Your task to perform on an android device: Search for sushi restaurants on Maps Image 0: 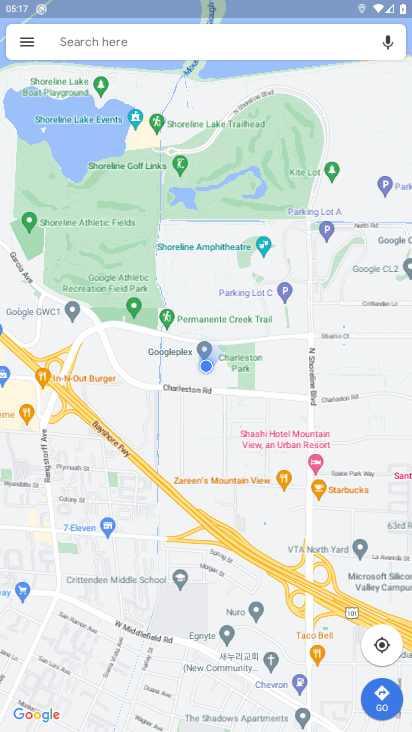
Step 0: click (121, 40)
Your task to perform on an android device: Search for sushi restaurants on Maps Image 1: 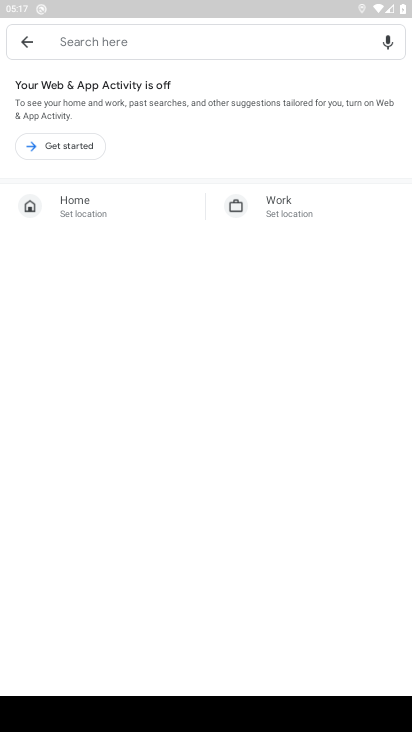
Step 1: click (113, 36)
Your task to perform on an android device: Search for sushi restaurants on Maps Image 2: 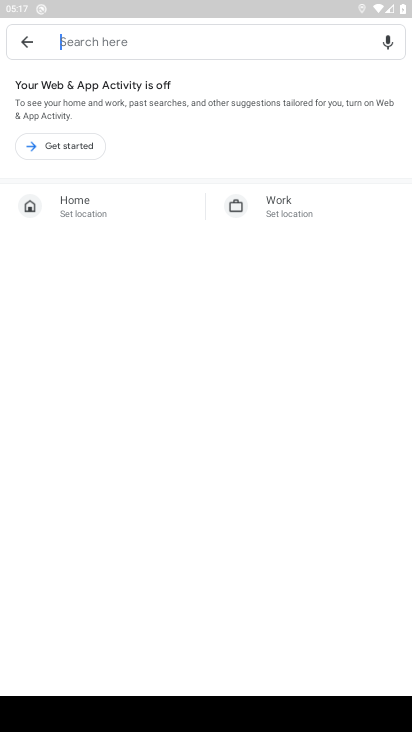
Step 2: type "sushi restaurants"
Your task to perform on an android device: Search for sushi restaurants on Maps Image 3: 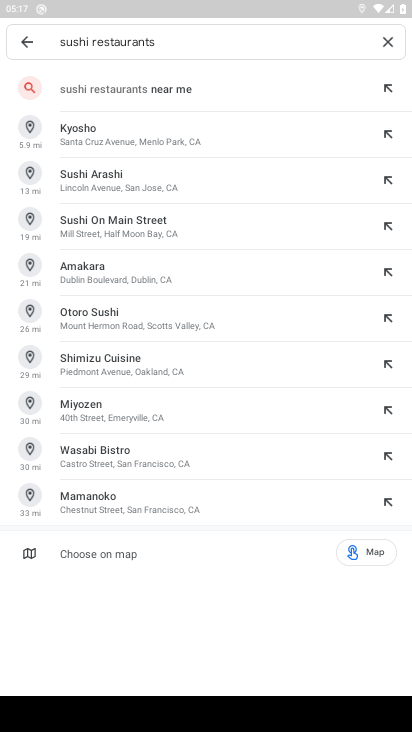
Step 3: click (154, 86)
Your task to perform on an android device: Search for sushi restaurants on Maps Image 4: 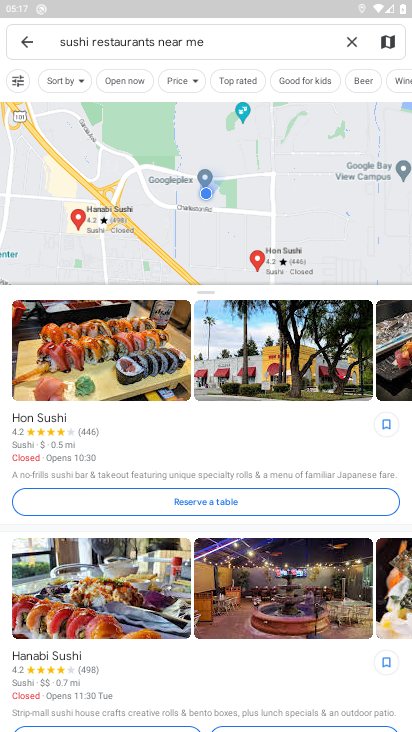
Step 4: task complete